Your task to perform on an android device: add a label to a message in the gmail app Image 0: 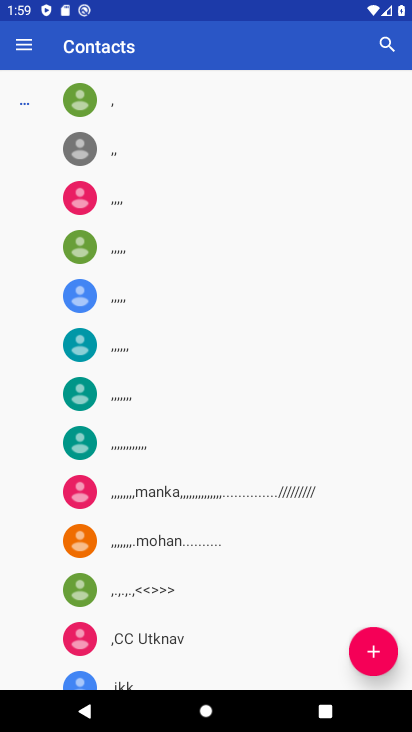
Step 0: press back button
Your task to perform on an android device: add a label to a message in the gmail app Image 1: 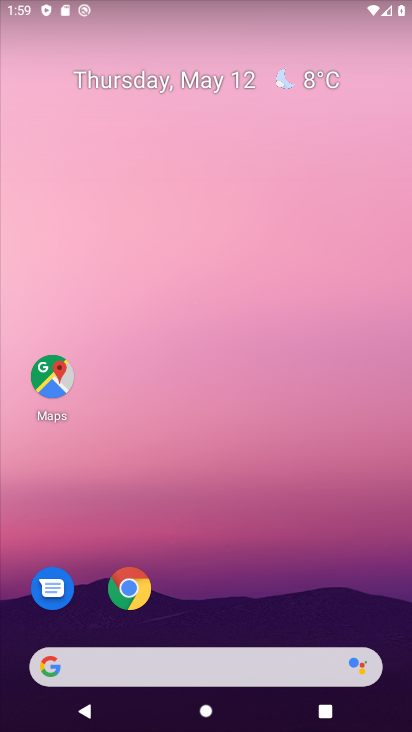
Step 1: drag from (229, 505) to (187, 19)
Your task to perform on an android device: add a label to a message in the gmail app Image 2: 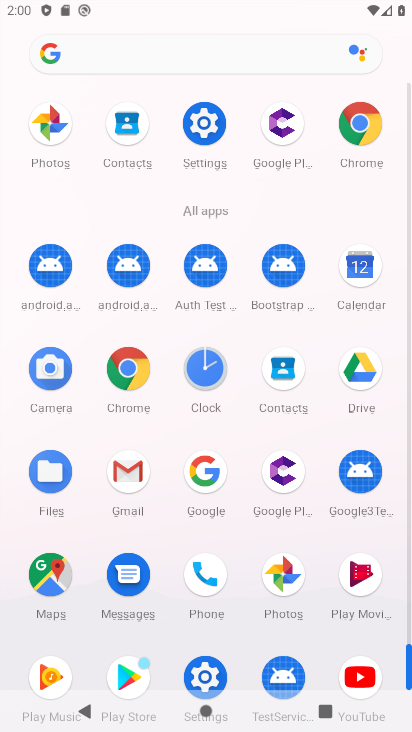
Step 2: drag from (7, 520) to (6, 256)
Your task to perform on an android device: add a label to a message in the gmail app Image 3: 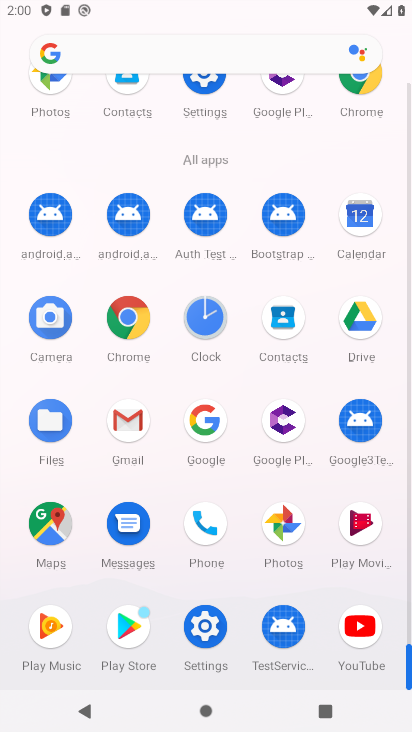
Step 3: drag from (5, 565) to (8, 280)
Your task to perform on an android device: add a label to a message in the gmail app Image 4: 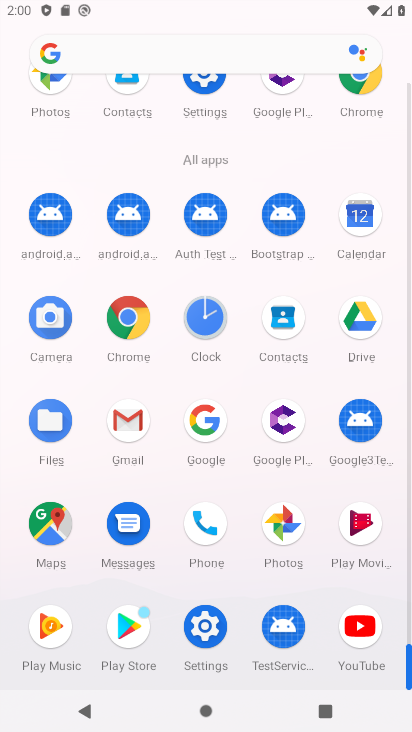
Step 4: click (131, 416)
Your task to perform on an android device: add a label to a message in the gmail app Image 5: 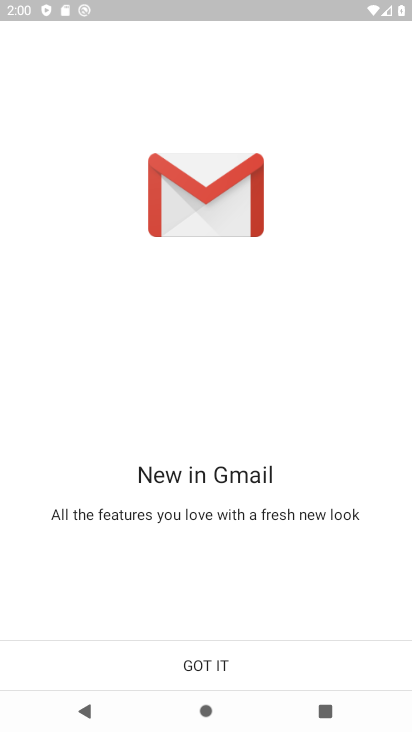
Step 5: click (205, 656)
Your task to perform on an android device: add a label to a message in the gmail app Image 6: 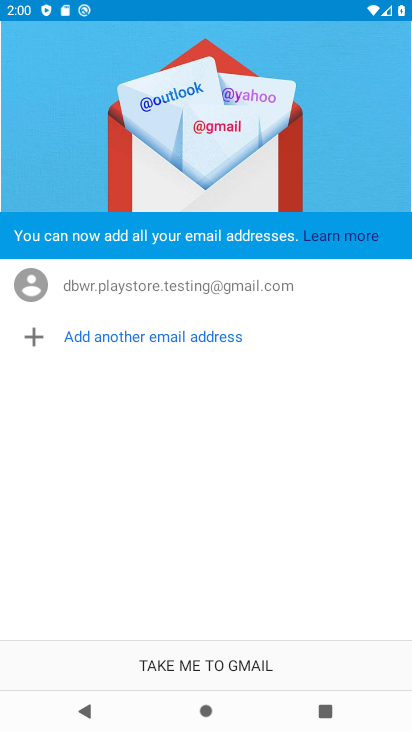
Step 6: click (187, 662)
Your task to perform on an android device: add a label to a message in the gmail app Image 7: 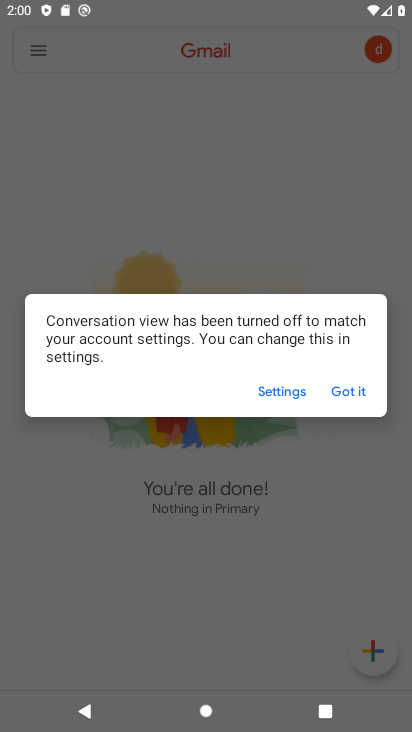
Step 7: click (340, 396)
Your task to perform on an android device: add a label to a message in the gmail app Image 8: 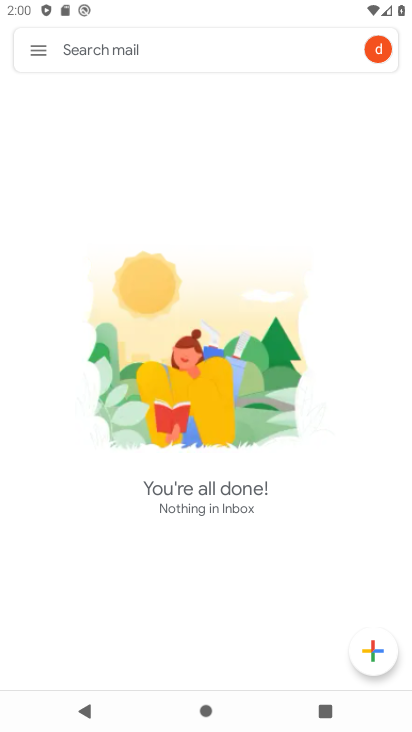
Step 8: click (32, 61)
Your task to perform on an android device: add a label to a message in the gmail app Image 9: 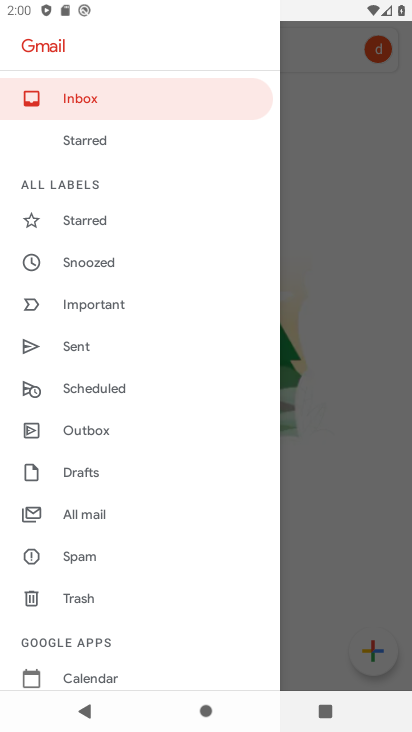
Step 9: click (103, 515)
Your task to perform on an android device: add a label to a message in the gmail app Image 10: 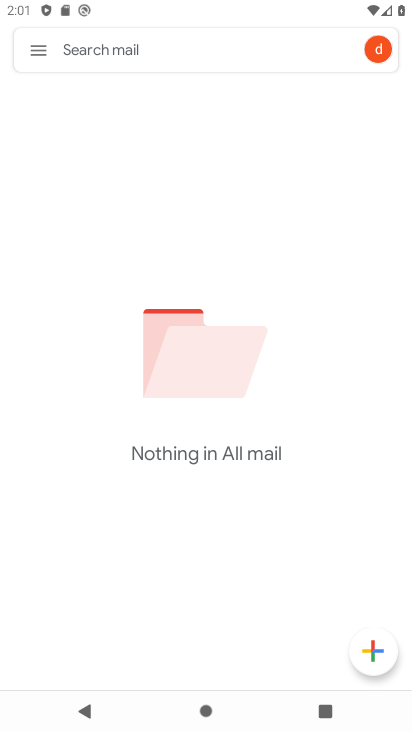
Step 10: click (39, 46)
Your task to perform on an android device: add a label to a message in the gmail app Image 11: 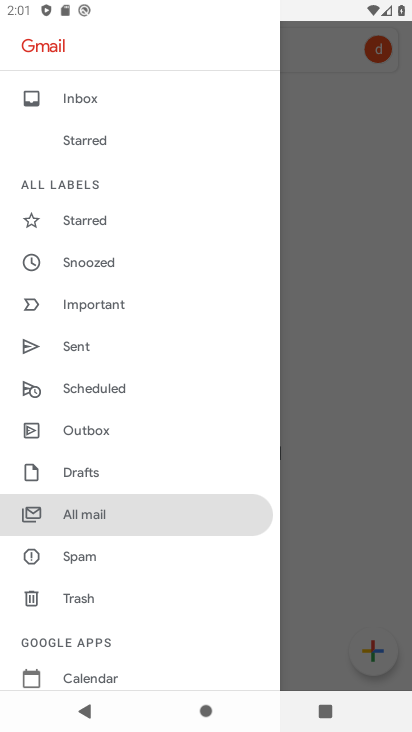
Step 11: click (117, 221)
Your task to perform on an android device: add a label to a message in the gmail app Image 12: 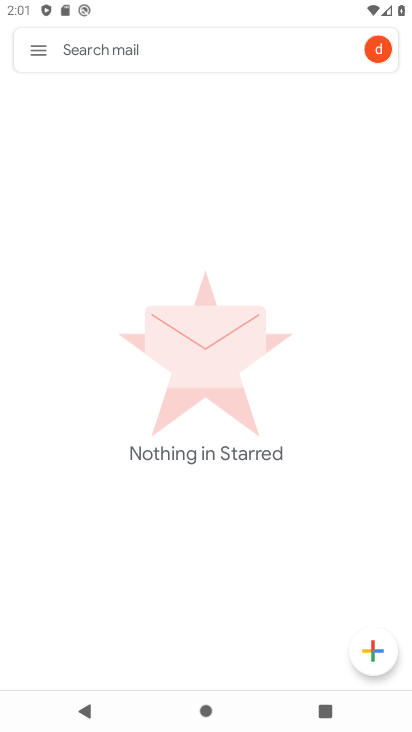
Step 12: click (32, 49)
Your task to perform on an android device: add a label to a message in the gmail app Image 13: 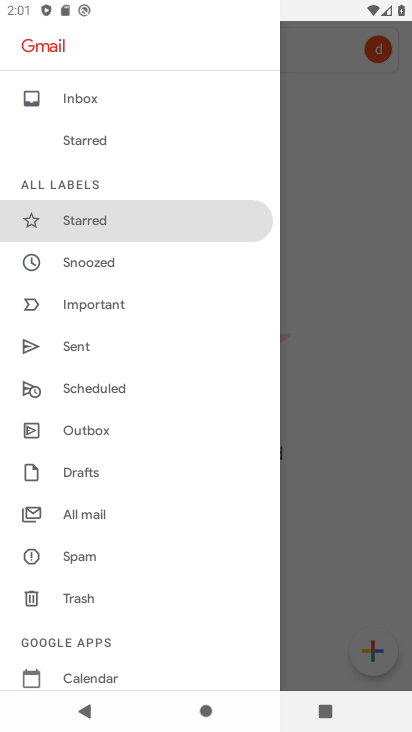
Step 13: drag from (135, 620) to (137, 428)
Your task to perform on an android device: add a label to a message in the gmail app Image 14: 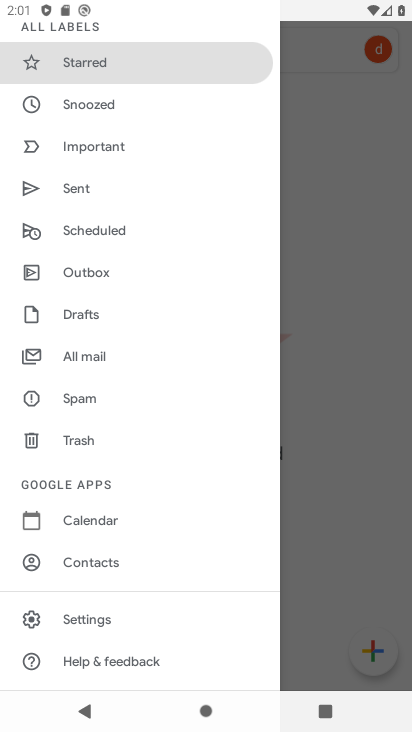
Step 14: click (103, 358)
Your task to perform on an android device: add a label to a message in the gmail app Image 15: 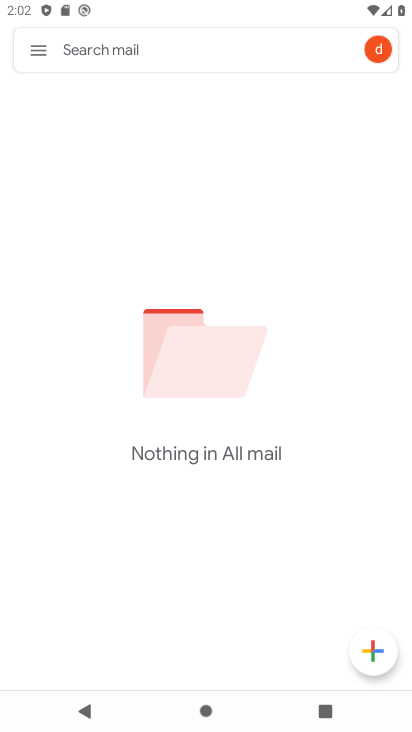
Step 15: click (30, 46)
Your task to perform on an android device: add a label to a message in the gmail app Image 16: 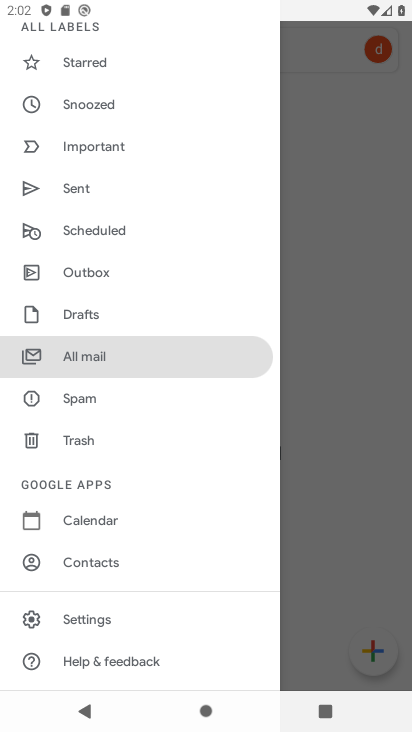
Step 16: click (121, 356)
Your task to perform on an android device: add a label to a message in the gmail app Image 17: 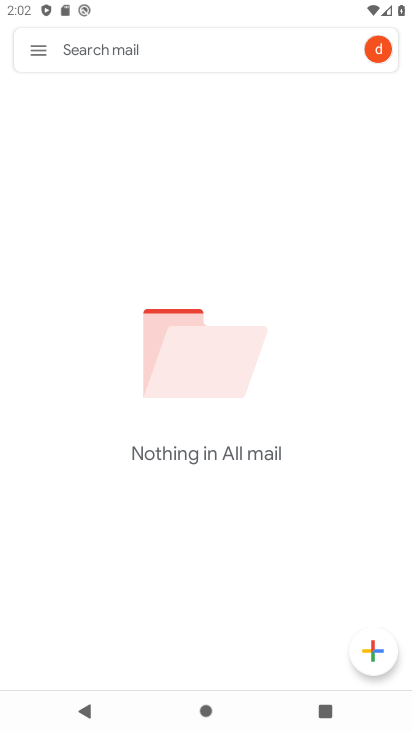
Step 17: task complete